Your task to perform on an android device: delete location history Image 0: 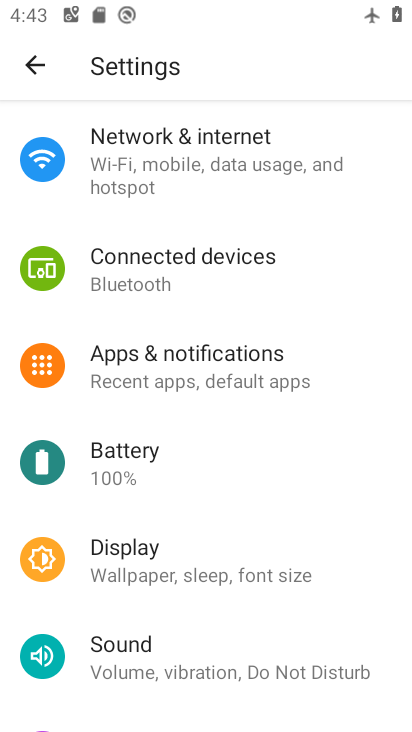
Step 0: drag from (158, 564) to (245, 154)
Your task to perform on an android device: delete location history Image 1: 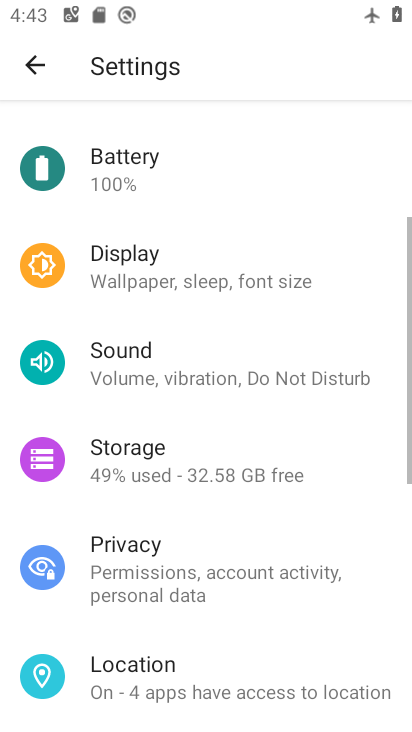
Step 1: drag from (134, 647) to (201, 255)
Your task to perform on an android device: delete location history Image 2: 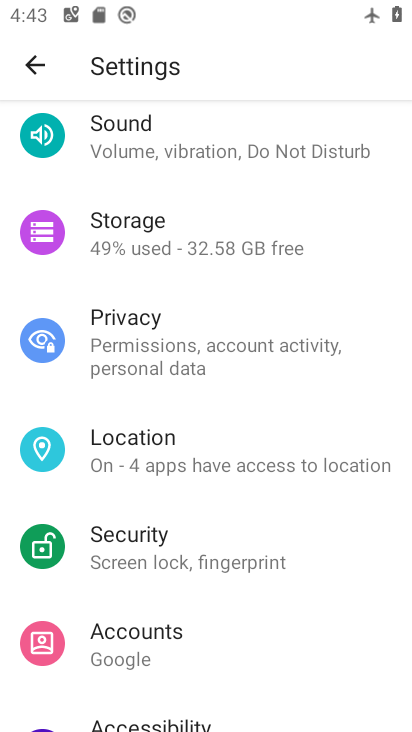
Step 2: click (192, 460)
Your task to perform on an android device: delete location history Image 3: 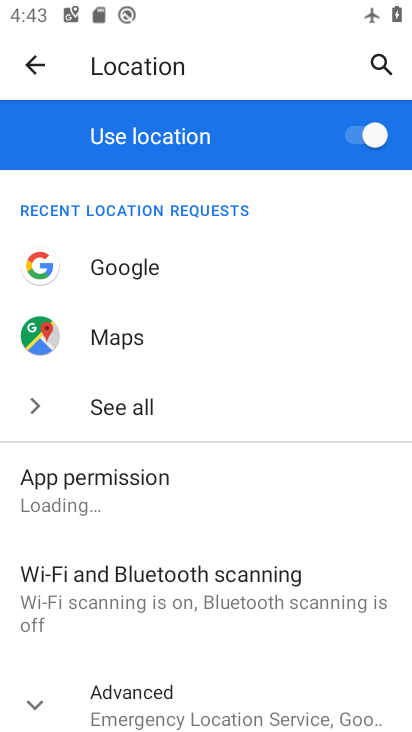
Step 3: click (163, 697)
Your task to perform on an android device: delete location history Image 4: 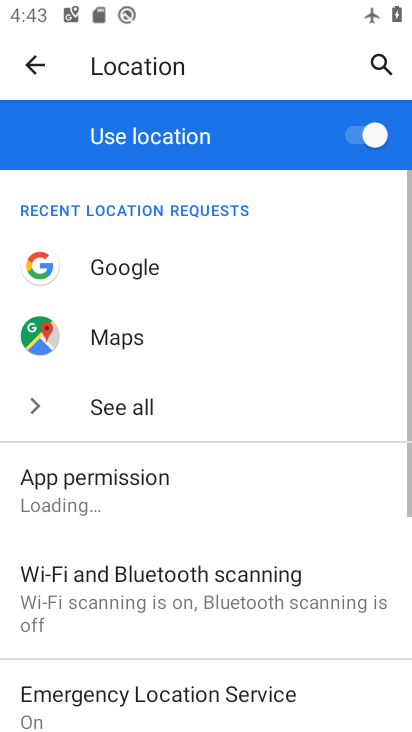
Step 4: drag from (162, 692) to (309, 137)
Your task to perform on an android device: delete location history Image 5: 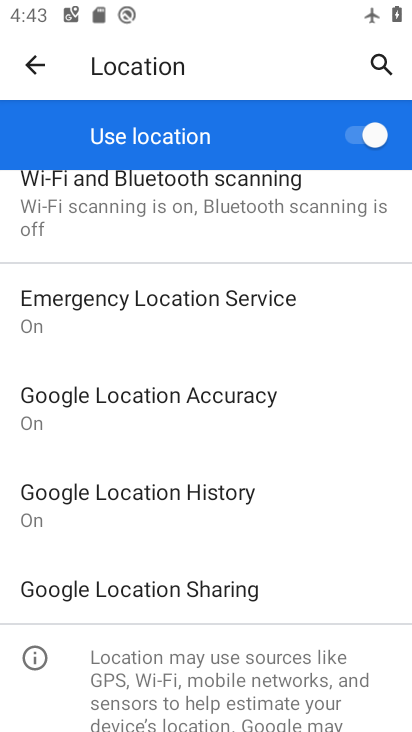
Step 5: click (209, 511)
Your task to perform on an android device: delete location history Image 6: 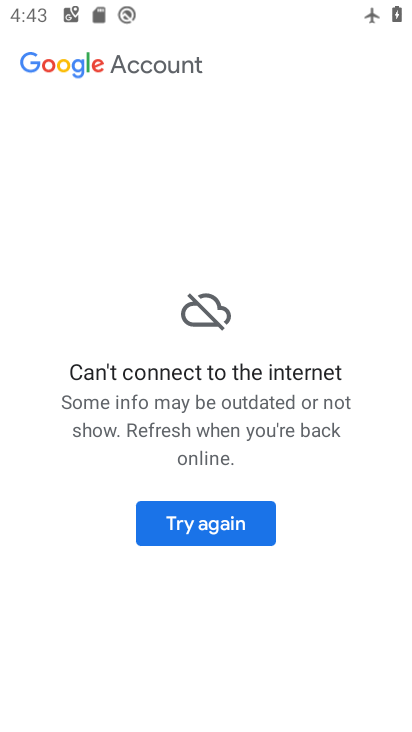
Step 6: task complete